Your task to perform on an android device: find snoozed emails in the gmail app Image 0: 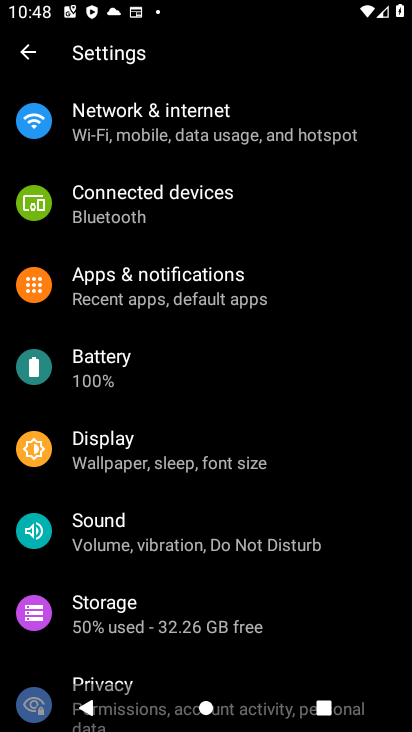
Step 0: press home button
Your task to perform on an android device: find snoozed emails in the gmail app Image 1: 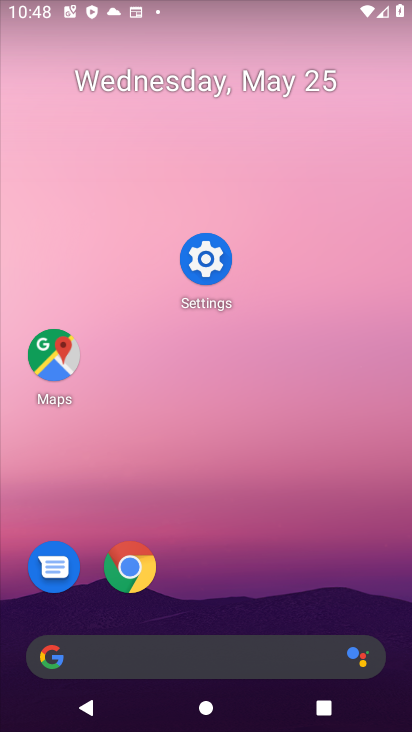
Step 1: drag from (306, 481) to (310, 73)
Your task to perform on an android device: find snoozed emails in the gmail app Image 2: 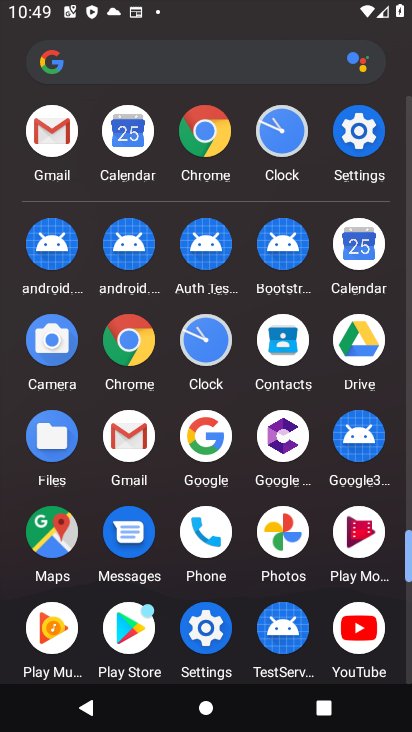
Step 2: click (117, 481)
Your task to perform on an android device: find snoozed emails in the gmail app Image 3: 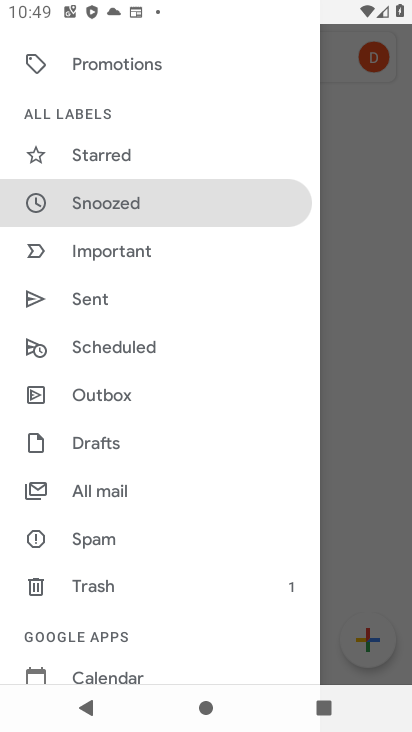
Step 3: click (97, 202)
Your task to perform on an android device: find snoozed emails in the gmail app Image 4: 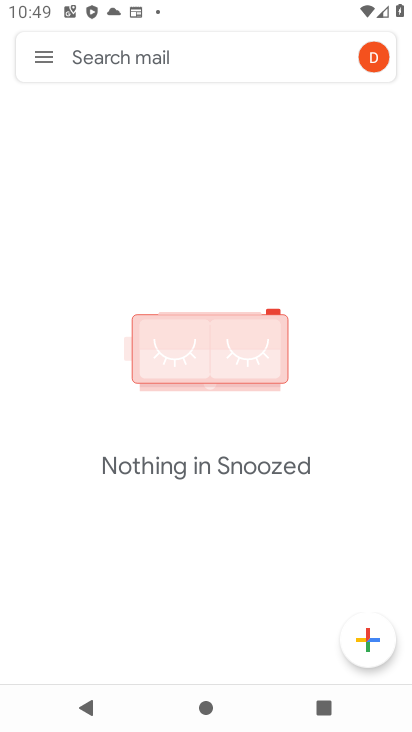
Step 4: task complete